Your task to perform on an android device: change text size in settings app Image 0: 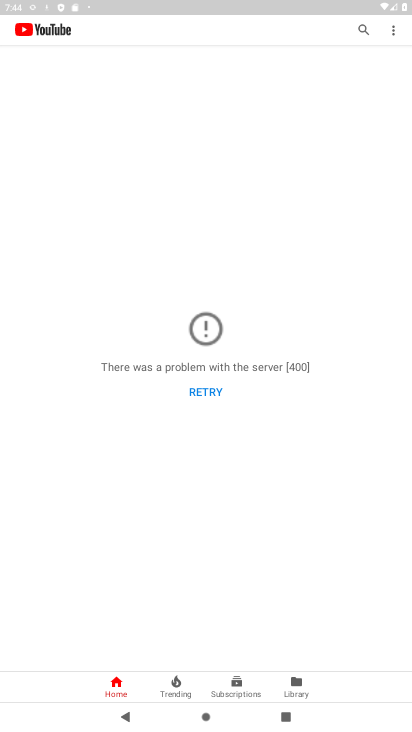
Step 0: press back button
Your task to perform on an android device: change text size in settings app Image 1: 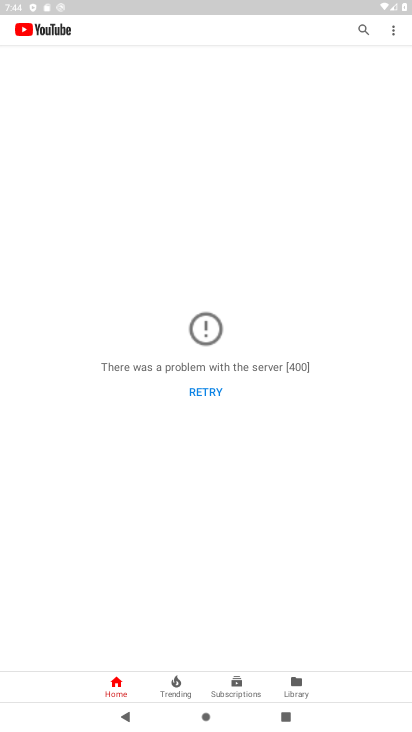
Step 1: press back button
Your task to perform on an android device: change text size in settings app Image 2: 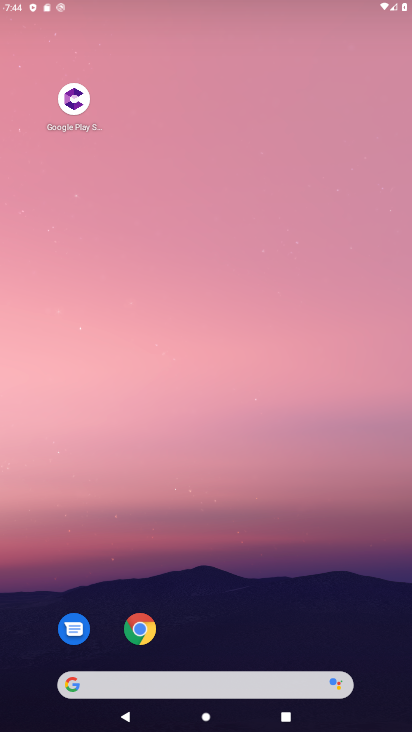
Step 2: press back button
Your task to perform on an android device: change text size in settings app Image 3: 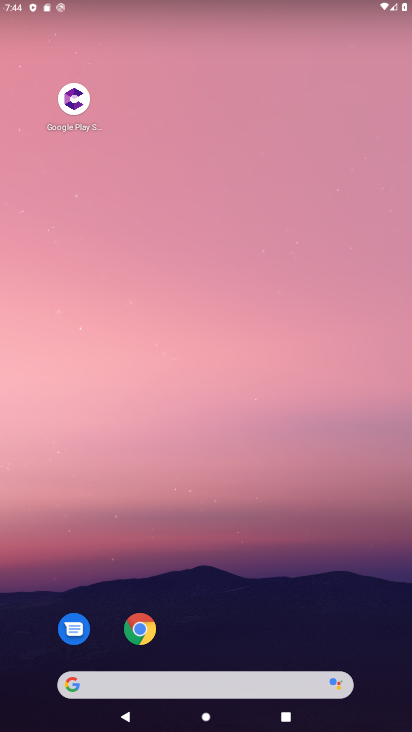
Step 3: drag from (240, 625) to (127, 5)
Your task to perform on an android device: change text size in settings app Image 4: 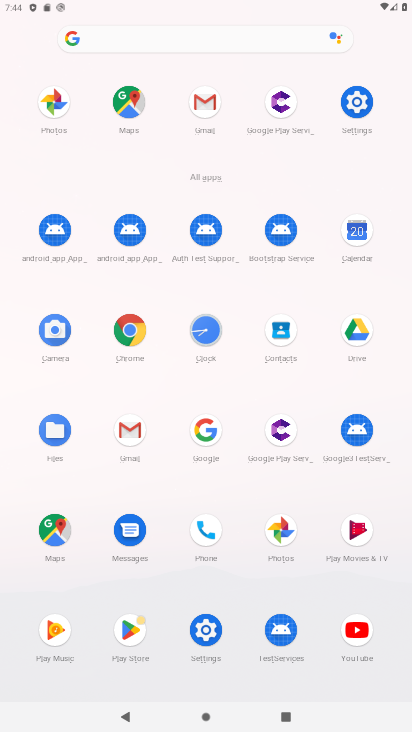
Step 4: click (364, 109)
Your task to perform on an android device: change text size in settings app Image 5: 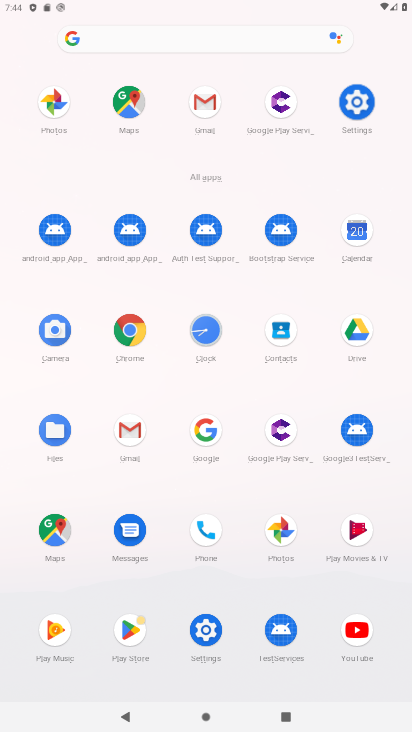
Step 5: click (358, 108)
Your task to perform on an android device: change text size in settings app Image 6: 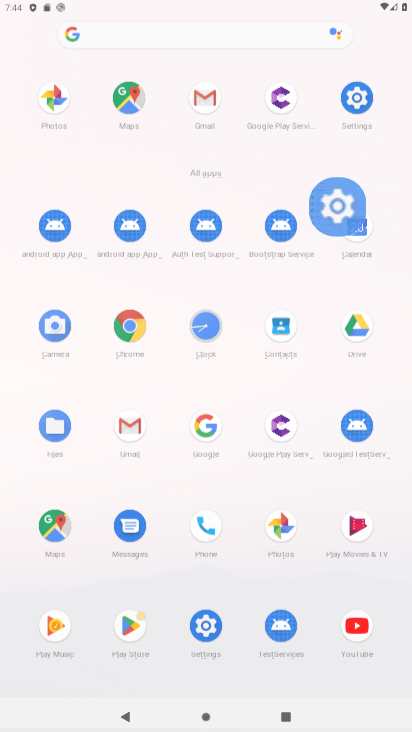
Step 6: click (358, 108)
Your task to perform on an android device: change text size in settings app Image 7: 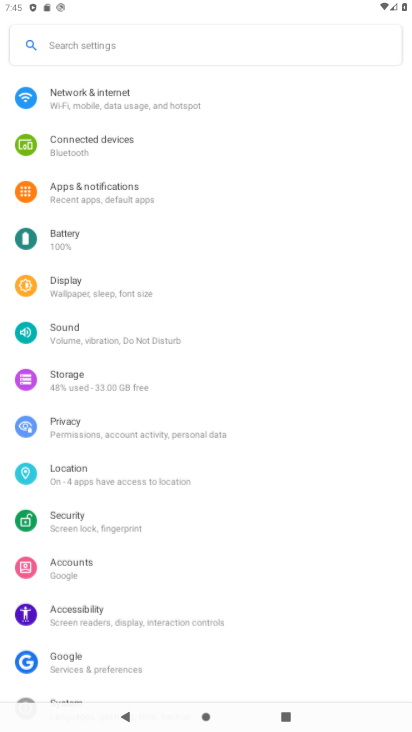
Step 7: click (358, 107)
Your task to perform on an android device: change text size in settings app Image 8: 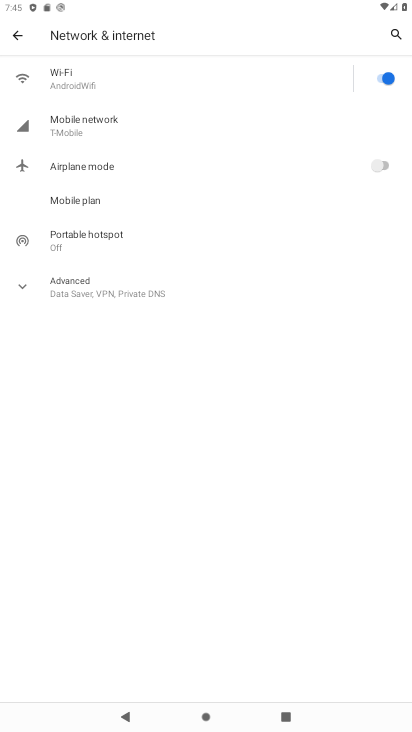
Step 8: click (80, 290)
Your task to perform on an android device: change text size in settings app Image 9: 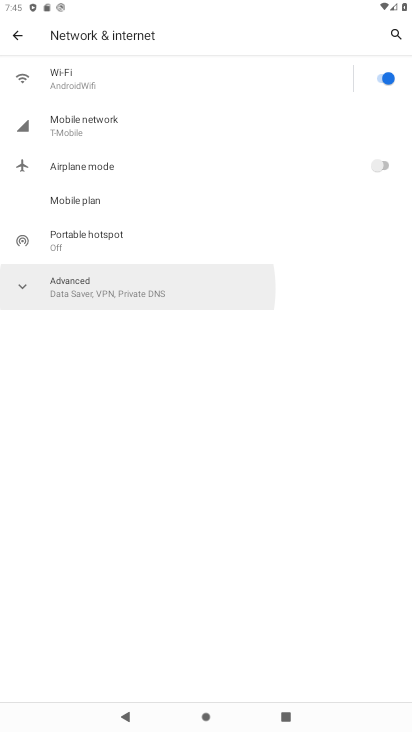
Step 9: click (91, 293)
Your task to perform on an android device: change text size in settings app Image 10: 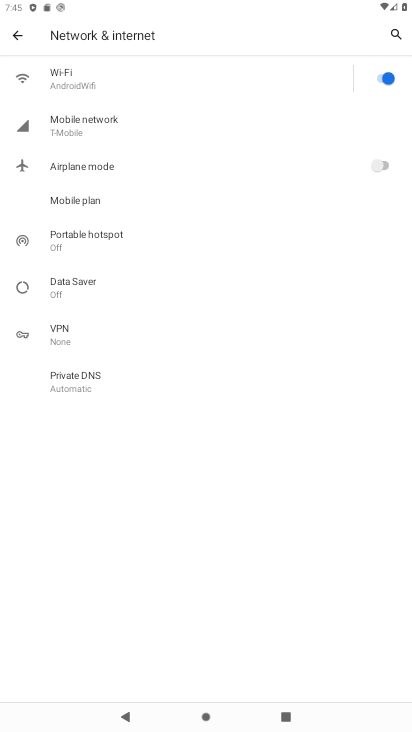
Step 10: click (19, 30)
Your task to perform on an android device: change text size in settings app Image 11: 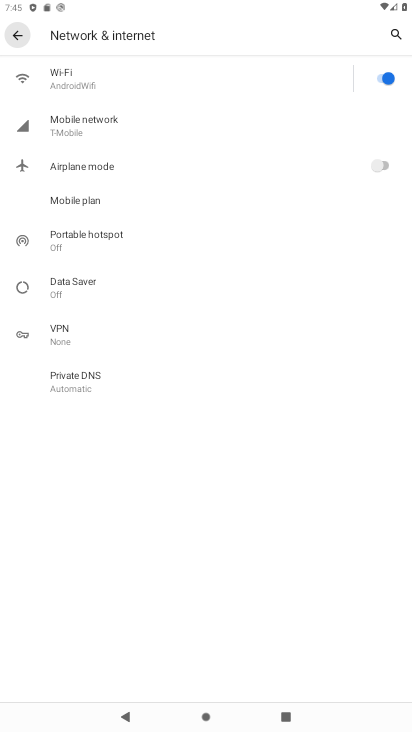
Step 11: click (17, 33)
Your task to perform on an android device: change text size in settings app Image 12: 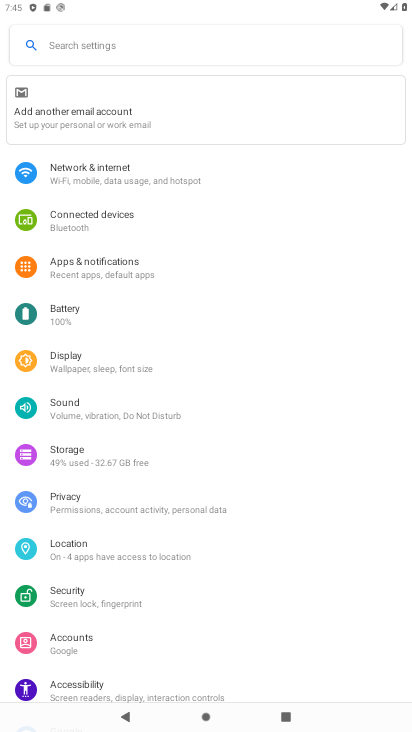
Step 12: click (56, 354)
Your task to perform on an android device: change text size in settings app Image 13: 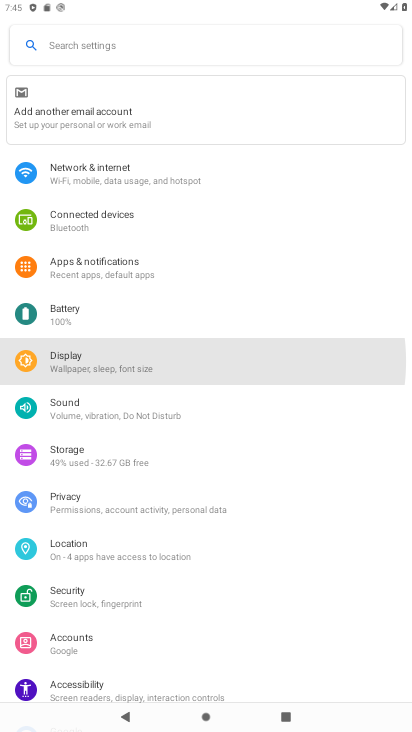
Step 13: click (56, 354)
Your task to perform on an android device: change text size in settings app Image 14: 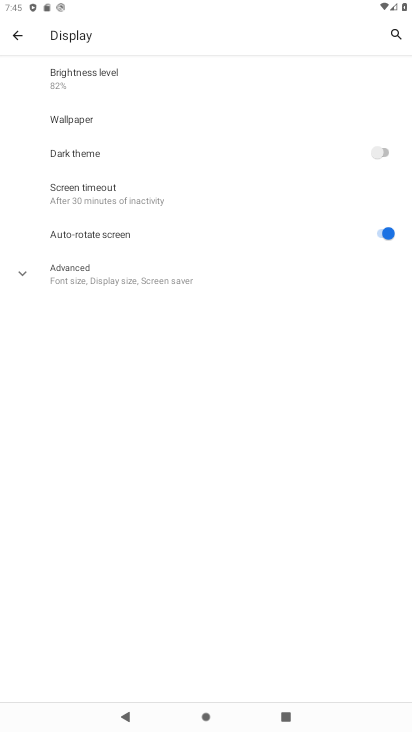
Step 14: click (58, 359)
Your task to perform on an android device: change text size in settings app Image 15: 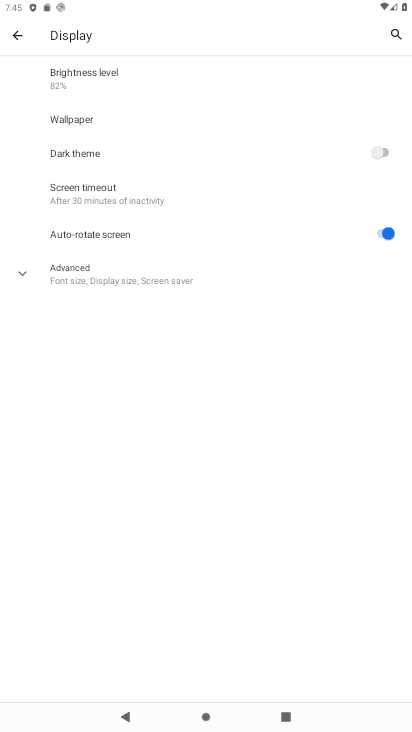
Step 15: click (86, 276)
Your task to perform on an android device: change text size in settings app Image 16: 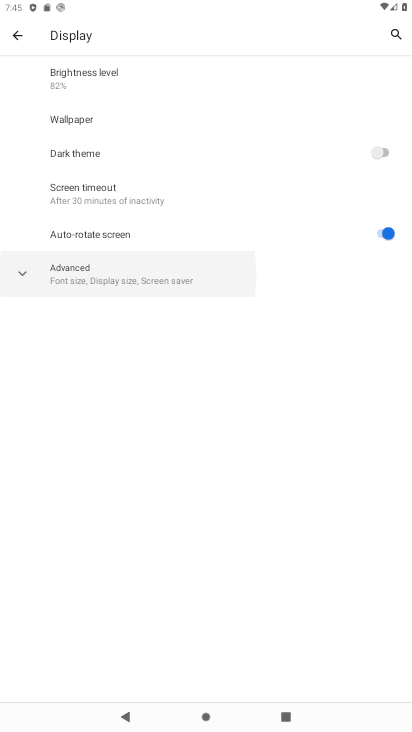
Step 16: click (86, 276)
Your task to perform on an android device: change text size in settings app Image 17: 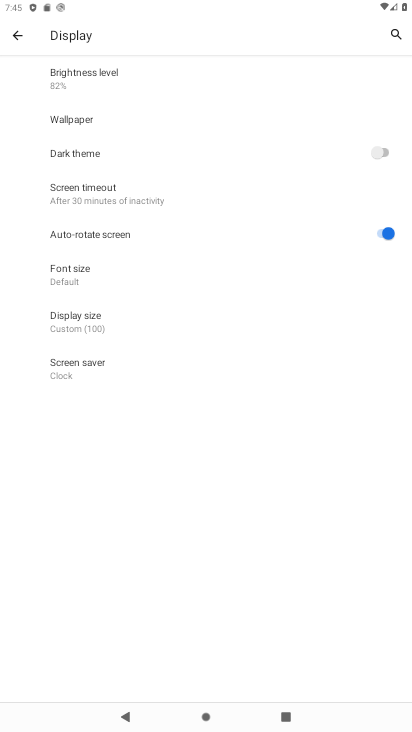
Step 17: click (67, 271)
Your task to perform on an android device: change text size in settings app Image 18: 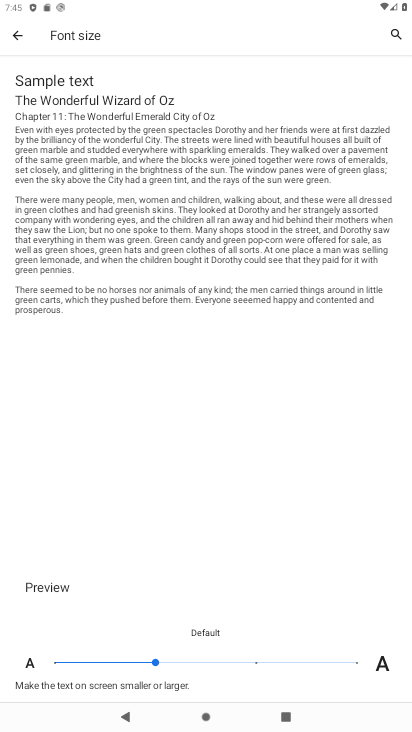
Step 18: click (360, 665)
Your task to perform on an android device: change text size in settings app Image 19: 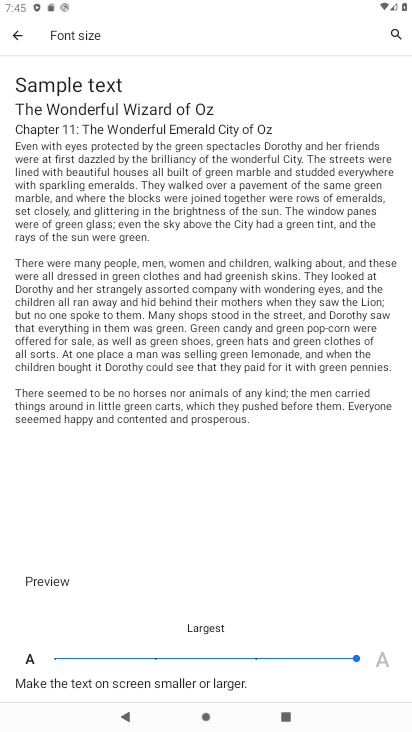
Step 19: task complete